Your task to perform on an android device: Show me productivity apps on the Play Store Image 0: 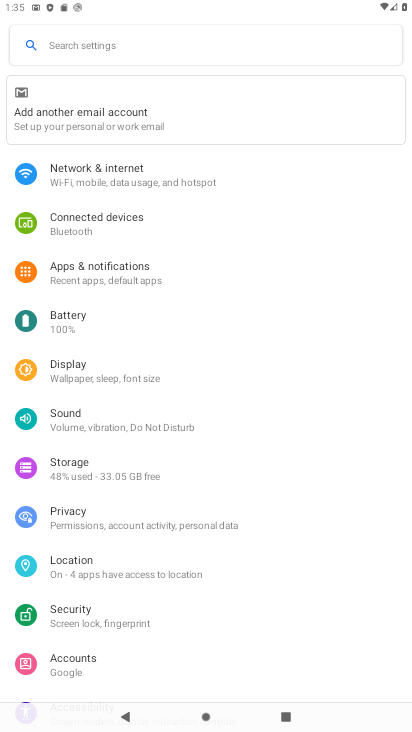
Step 0: press home button
Your task to perform on an android device: Show me productivity apps on the Play Store Image 1: 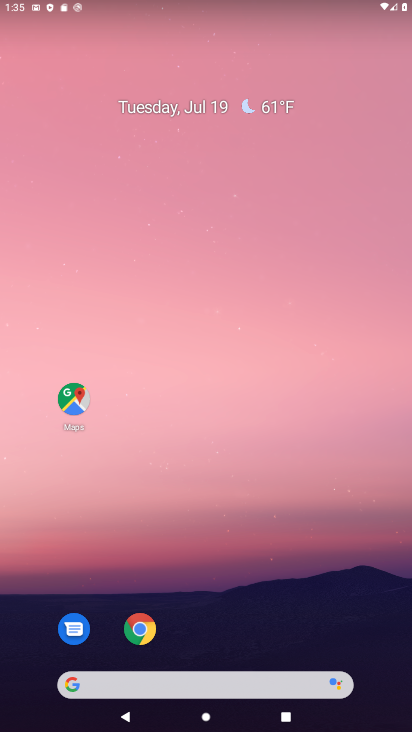
Step 1: drag from (366, 625) to (338, 182)
Your task to perform on an android device: Show me productivity apps on the Play Store Image 2: 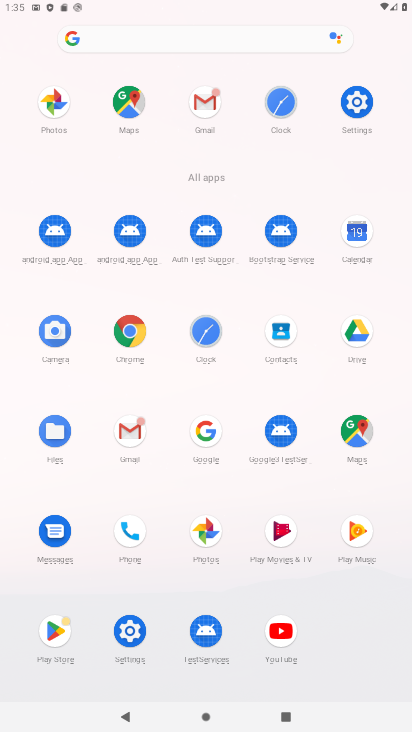
Step 2: click (58, 628)
Your task to perform on an android device: Show me productivity apps on the Play Store Image 3: 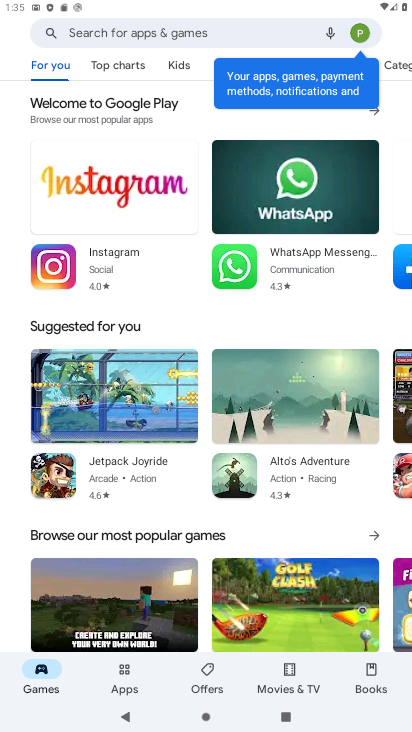
Step 3: click (124, 670)
Your task to perform on an android device: Show me productivity apps on the Play Store Image 4: 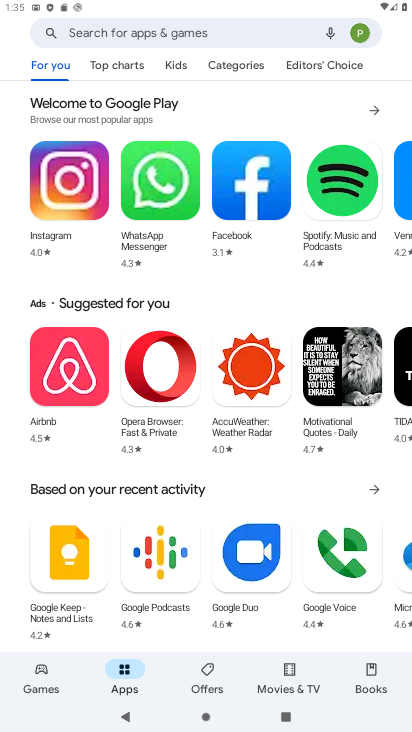
Step 4: click (228, 64)
Your task to perform on an android device: Show me productivity apps on the Play Store Image 5: 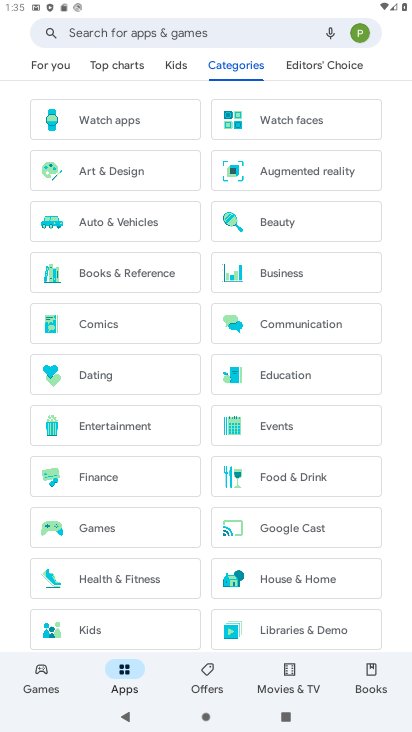
Step 5: drag from (206, 607) to (187, 266)
Your task to perform on an android device: Show me productivity apps on the Play Store Image 6: 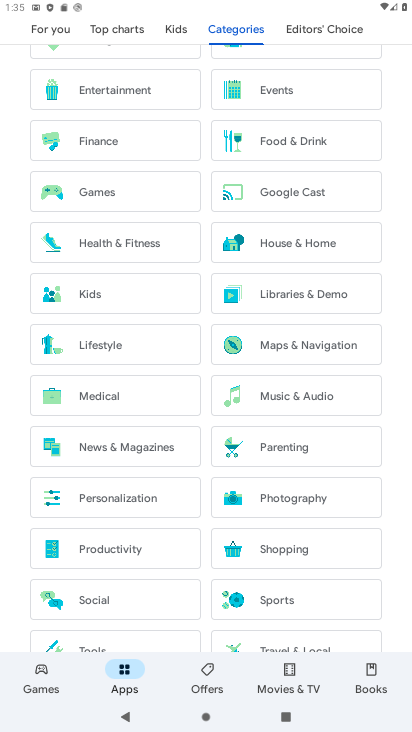
Step 6: click (96, 542)
Your task to perform on an android device: Show me productivity apps on the Play Store Image 7: 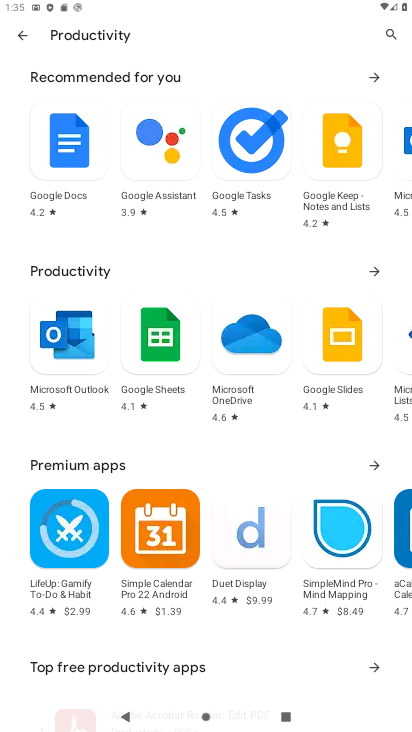
Step 7: click (373, 270)
Your task to perform on an android device: Show me productivity apps on the Play Store Image 8: 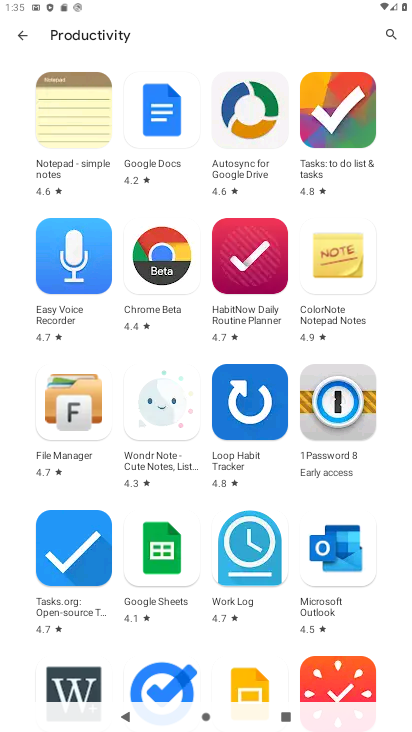
Step 8: task complete